Your task to perform on an android device: turn off airplane mode Image 0: 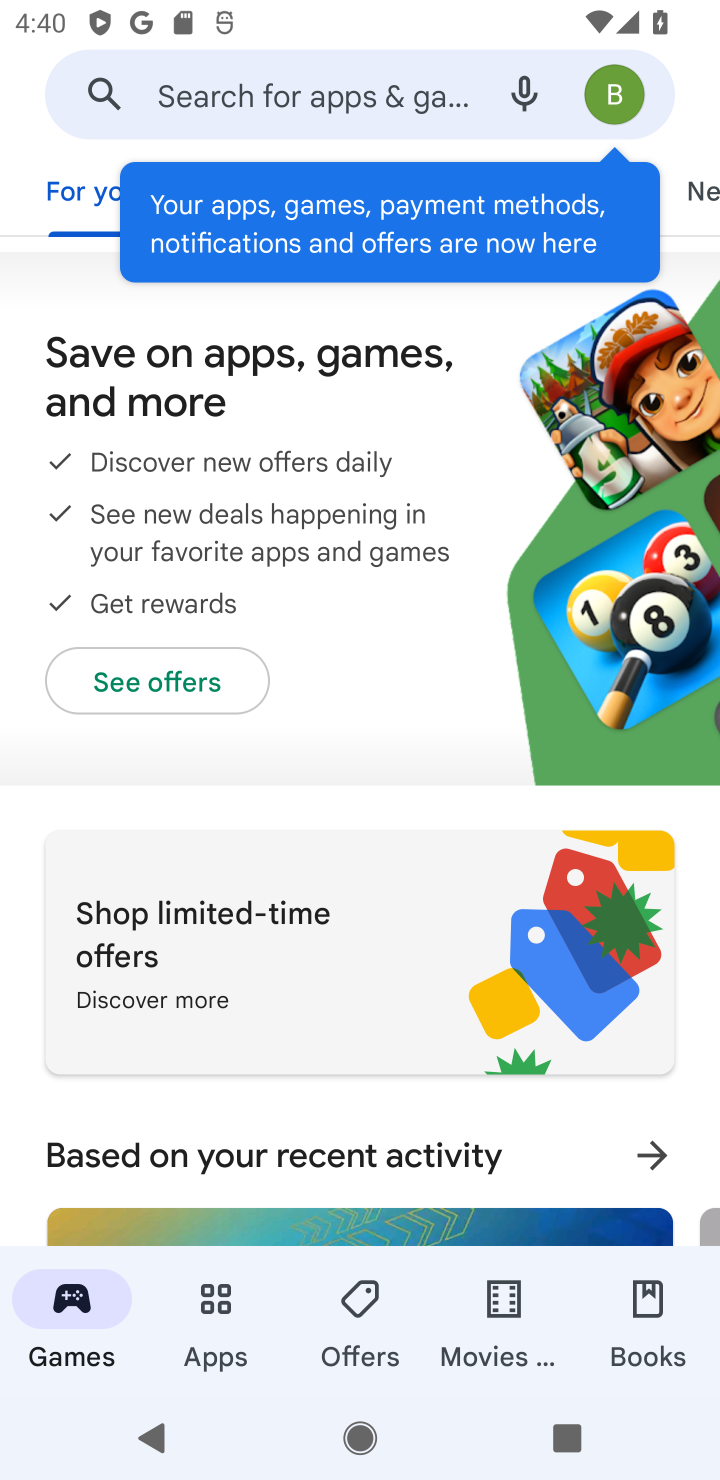
Step 0: press home button
Your task to perform on an android device: turn off airplane mode Image 1: 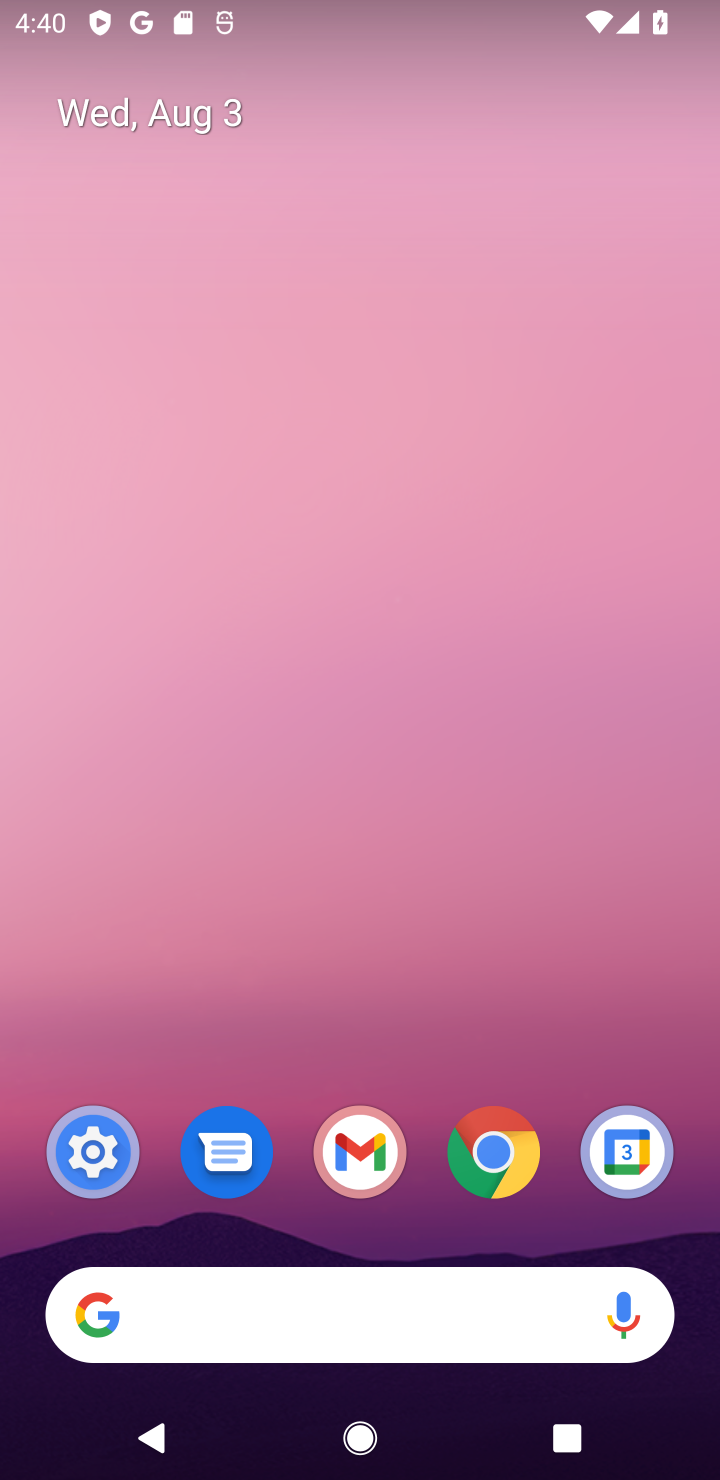
Step 1: click (77, 1181)
Your task to perform on an android device: turn off airplane mode Image 2: 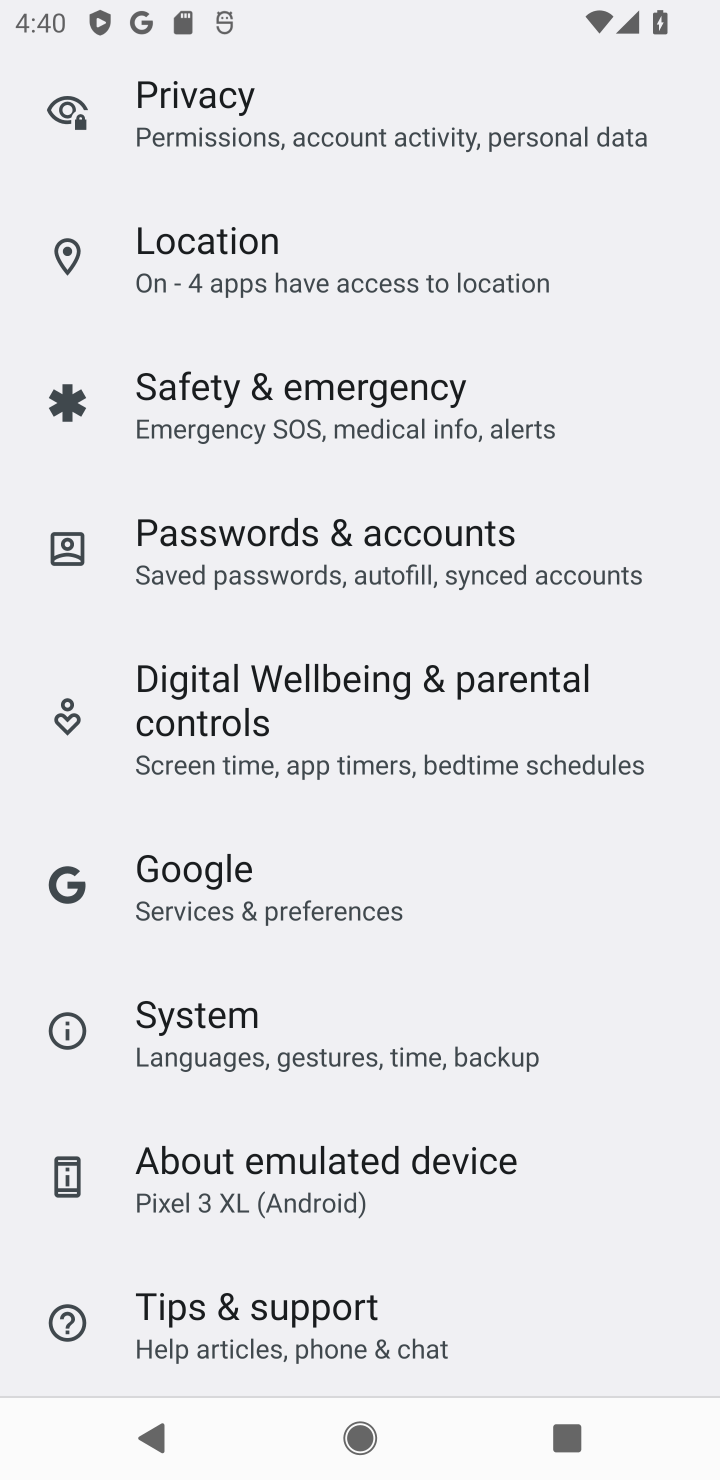
Step 2: drag from (243, 196) to (304, 786)
Your task to perform on an android device: turn off airplane mode Image 3: 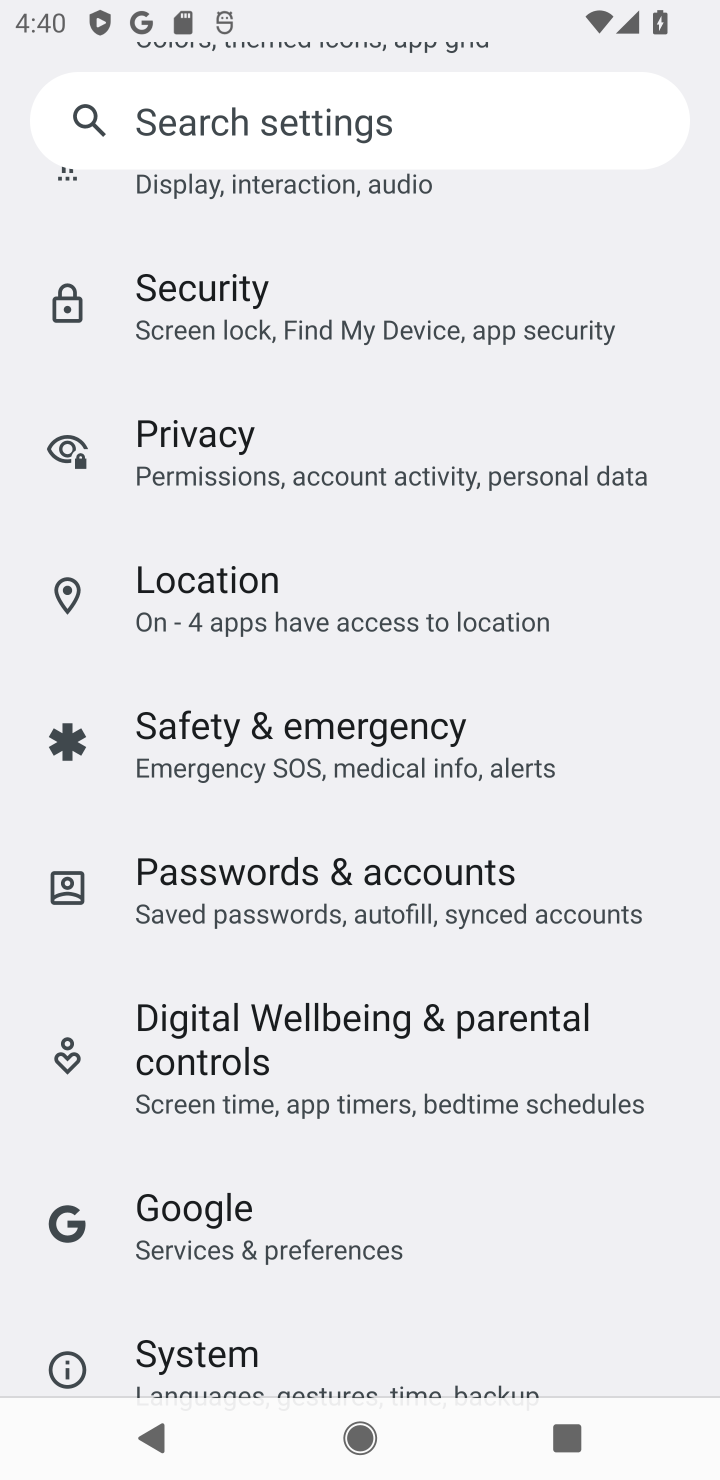
Step 3: drag from (315, 388) to (387, 792)
Your task to perform on an android device: turn off airplane mode Image 4: 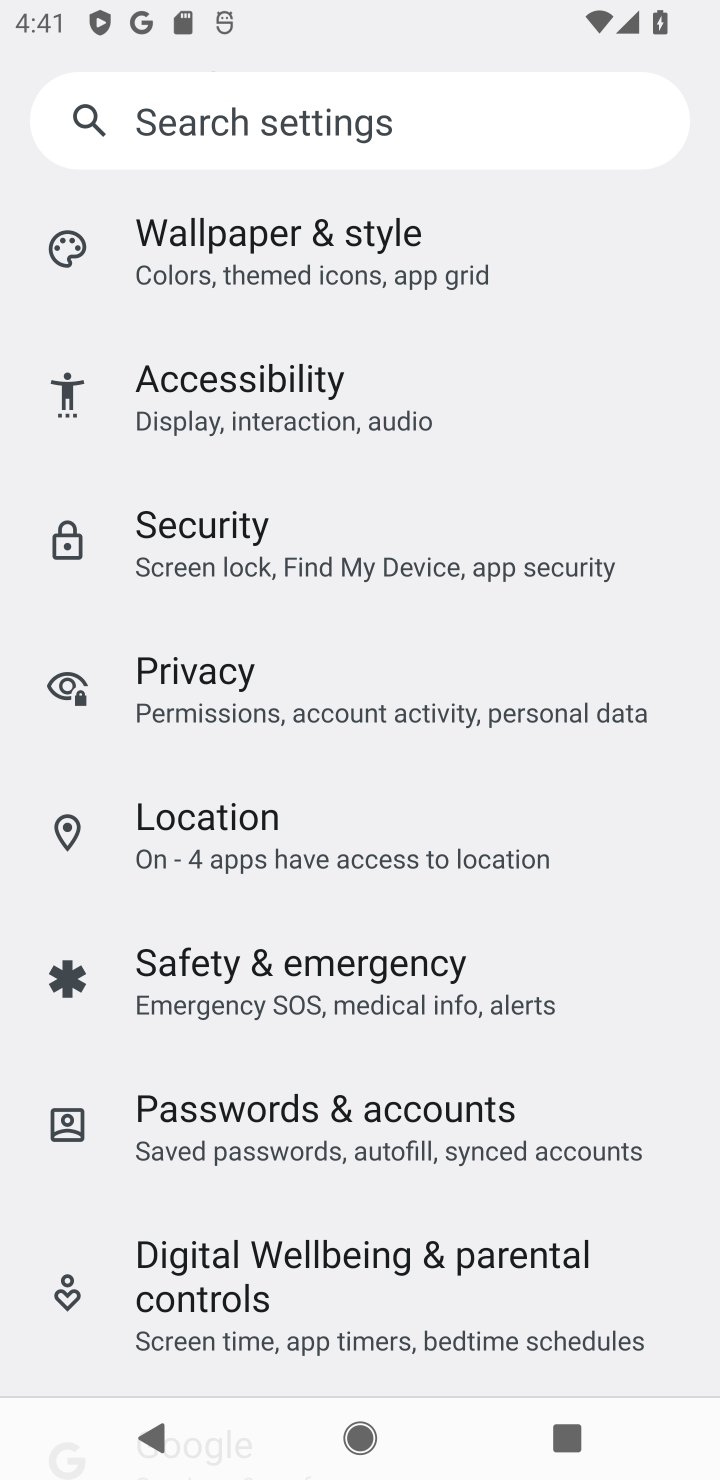
Step 4: drag from (284, 288) to (306, 791)
Your task to perform on an android device: turn off airplane mode Image 5: 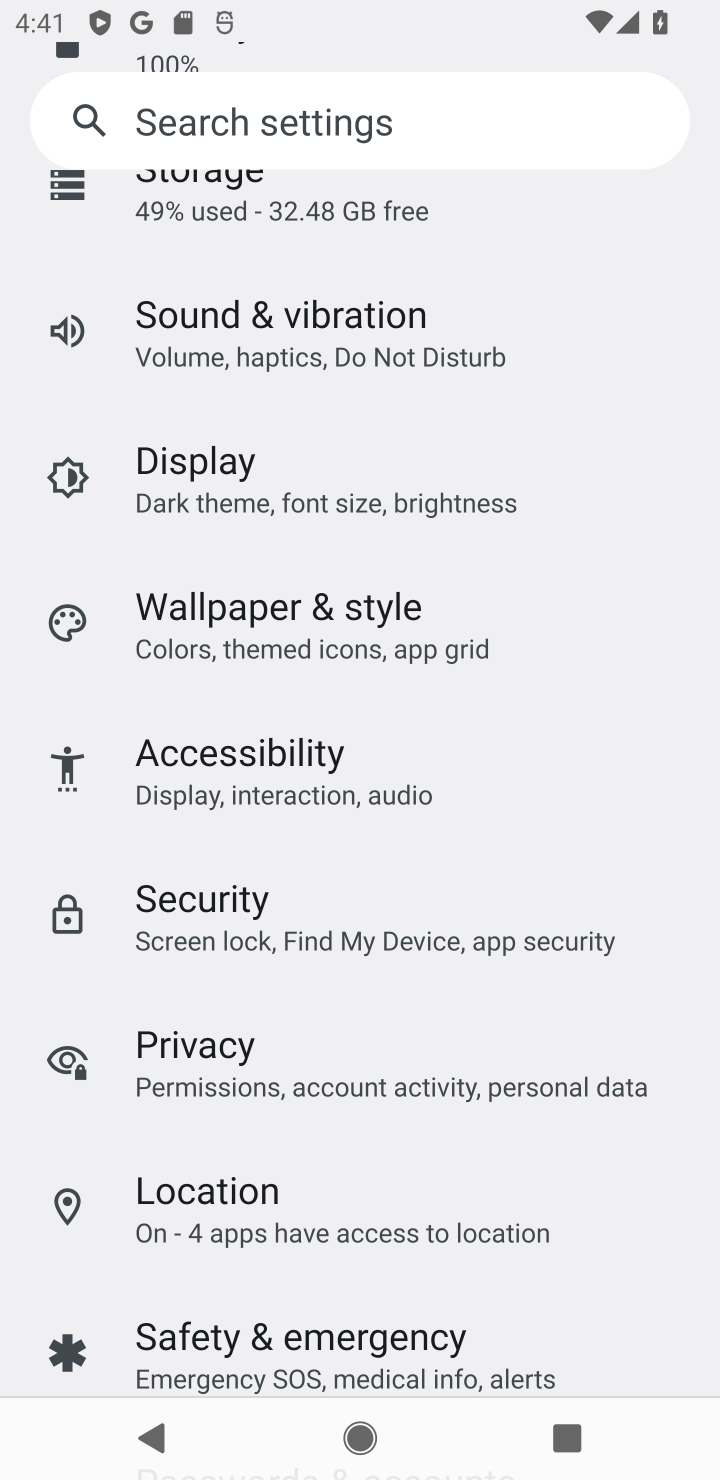
Step 5: drag from (210, 303) to (256, 718)
Your task to perform on an android device: turn off airplane mode Image 6: 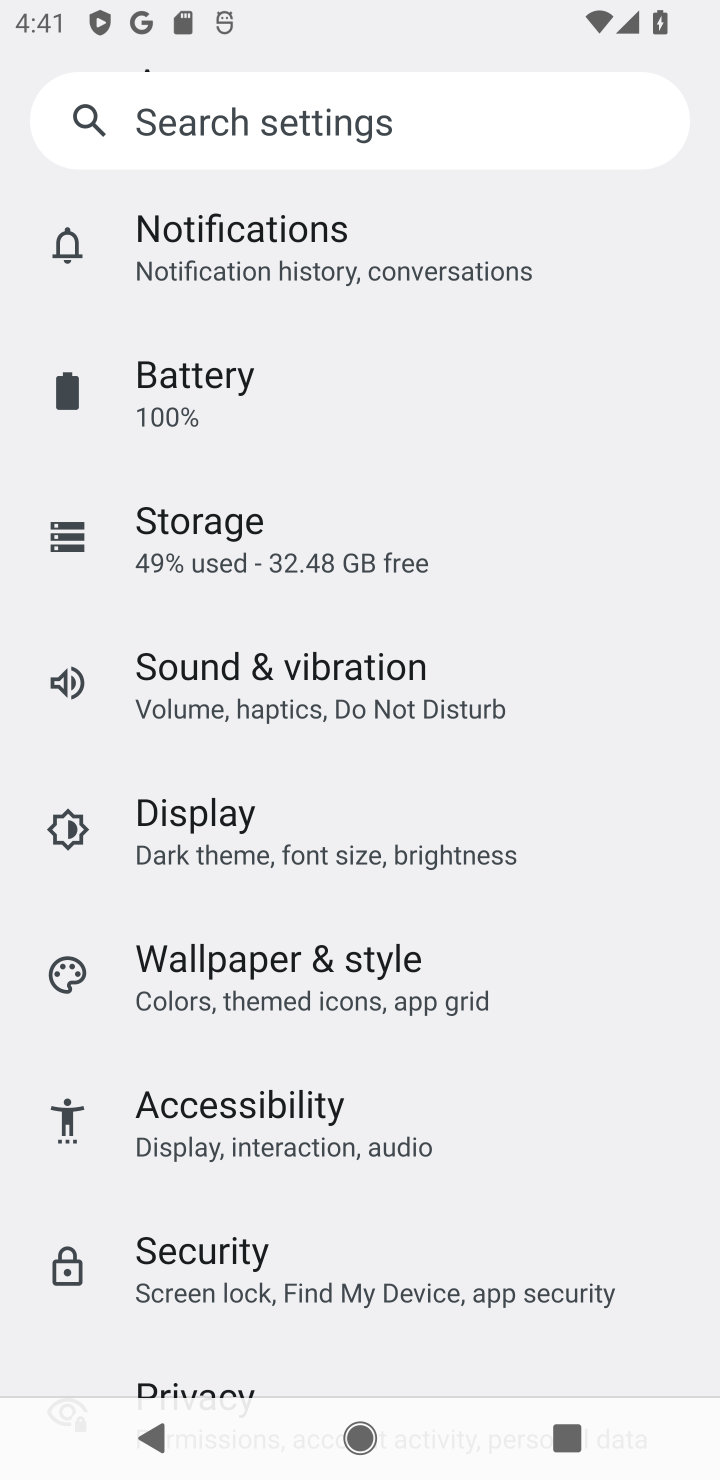
Step 6: drag from (230, 276) to (281, 689)
Your task to perform on an android device: turn off airplane mode Image 7: 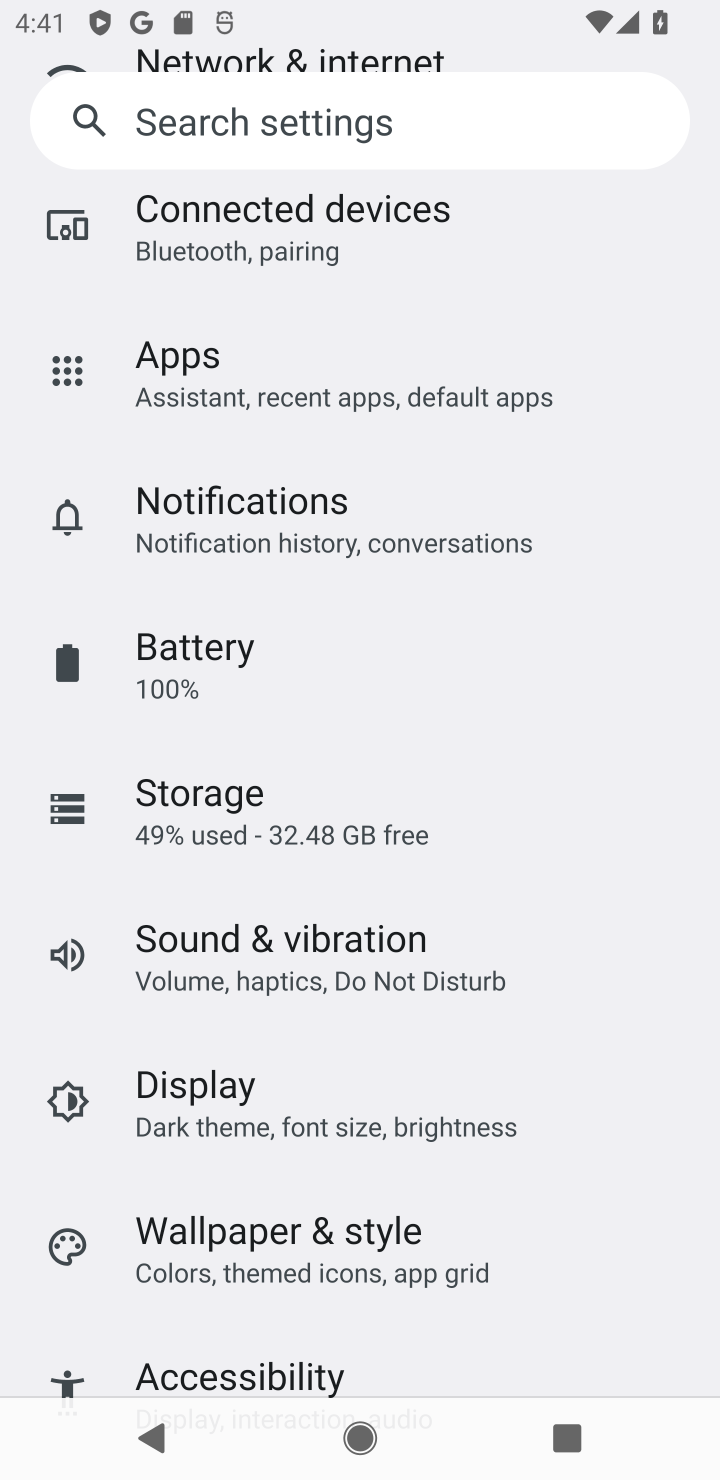
Step 7: drag from (189, 249) to (207, 707)
Your task to perform on an android device: turn off airplane mode Image 8: 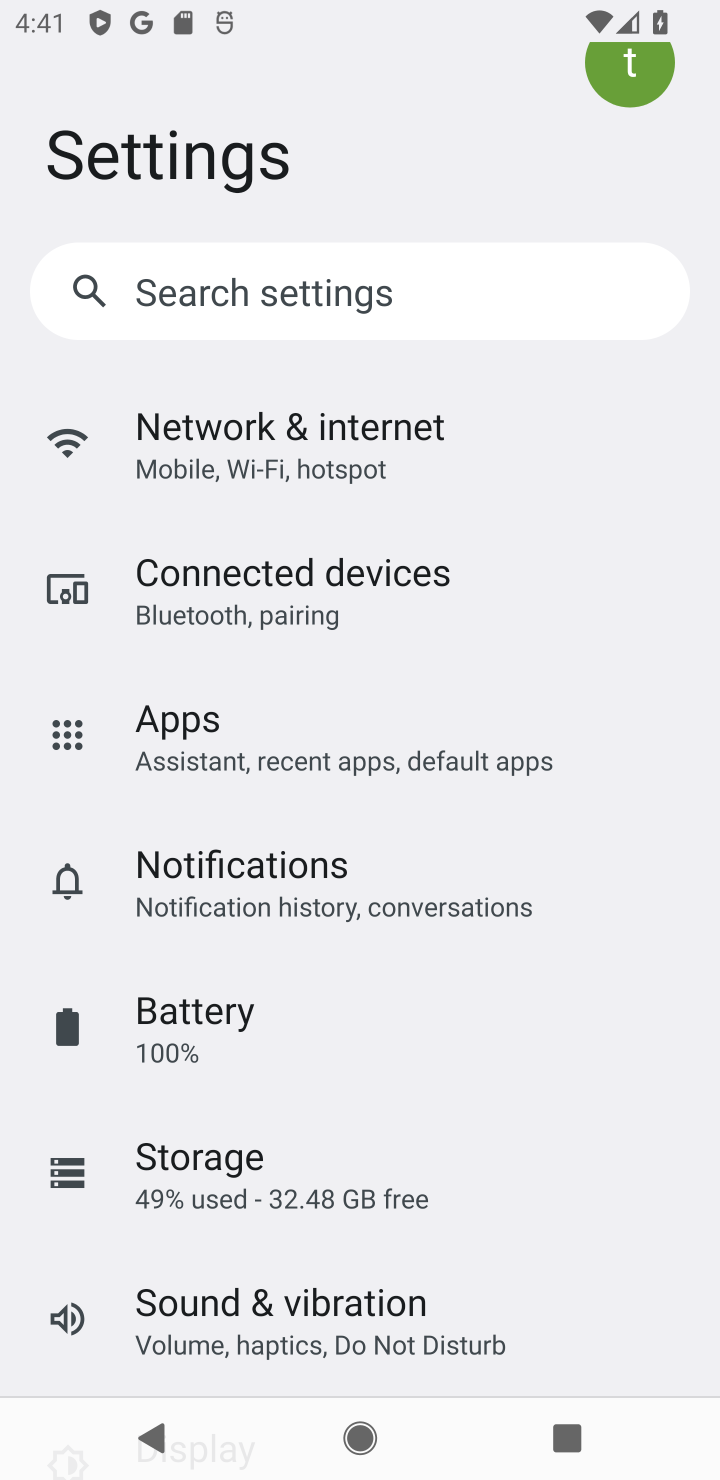
Step 8: click (187, 433)
Your task to perform on an android device: turn off airplane mode Image 9: 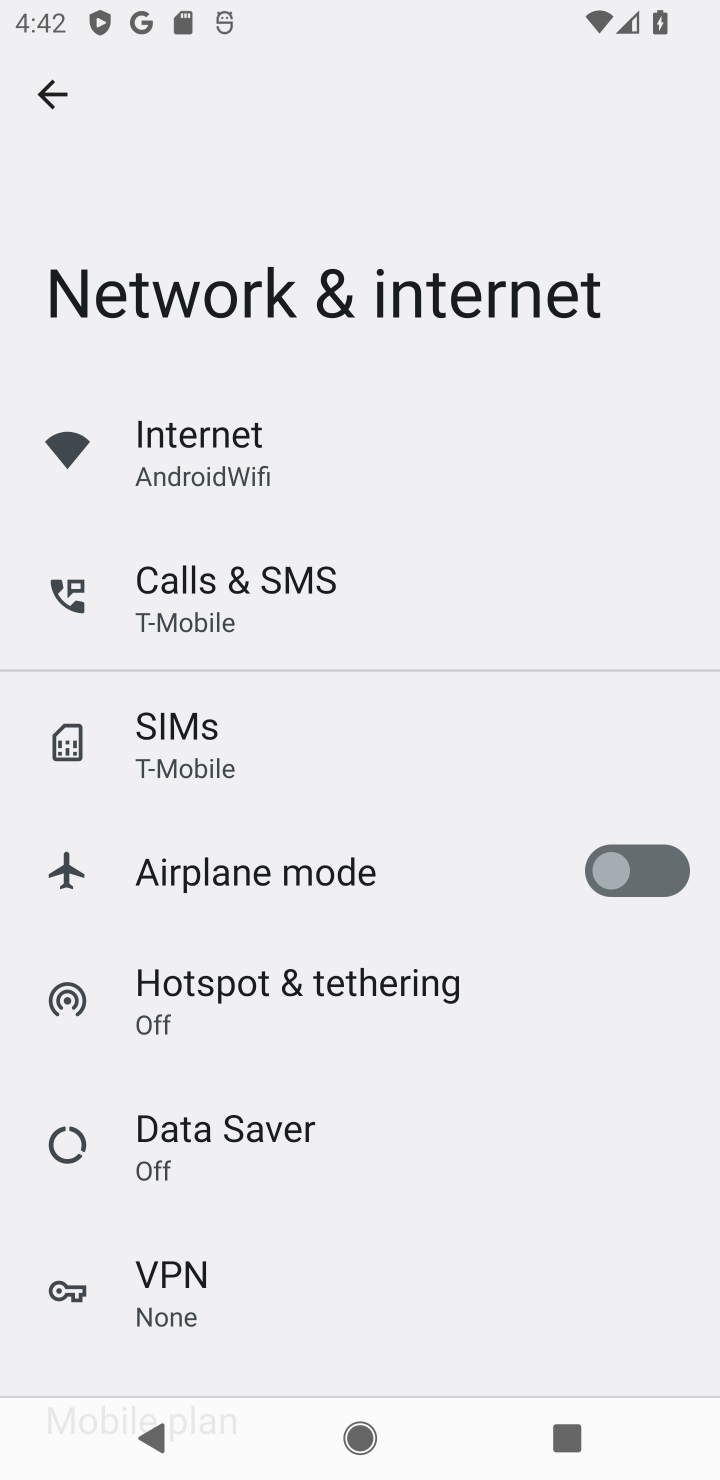
Step 9: task complete